Your task to perform on an android device: turn off data saver in the chrome app Image 0: 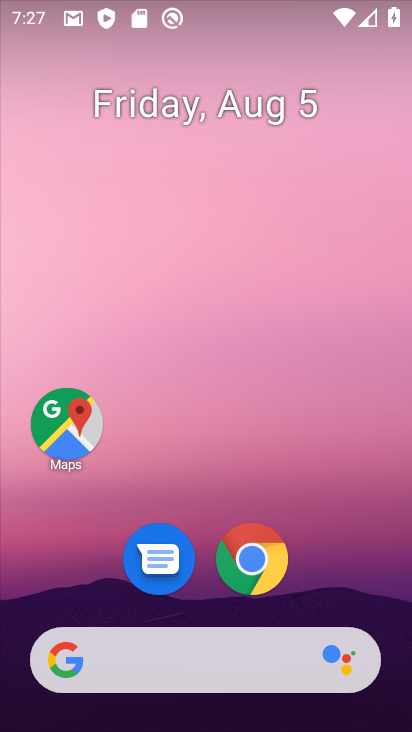
Step 0: drag from (186, 608) to (411, 460)
Your task to perform on an android device: turn off data saver in the chrome app Image 1: 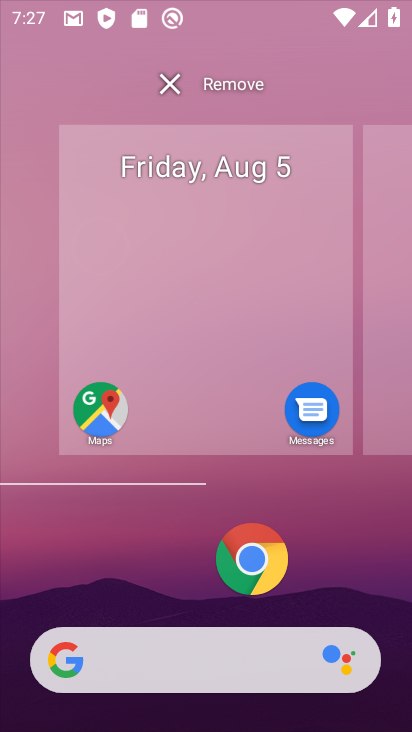
Step 1: click (321, 535)
Your task to perform on an android device: turn off data saver in the chrome app Image 2: 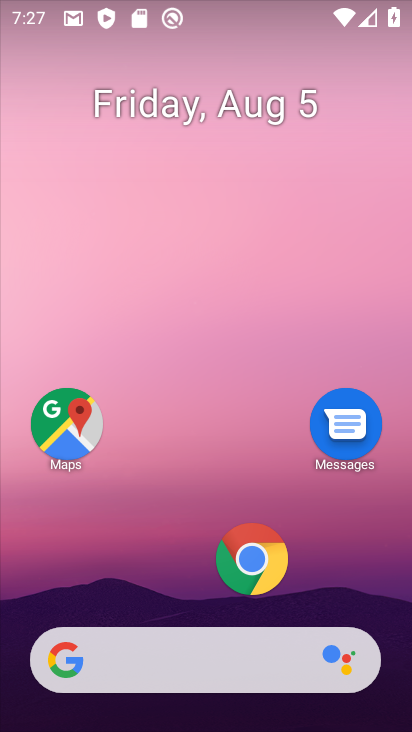
Step 2: drag from (171, 633) to (91, 150)
Your task to perform on an android device: turn off data saver in the chrome app Image 3: 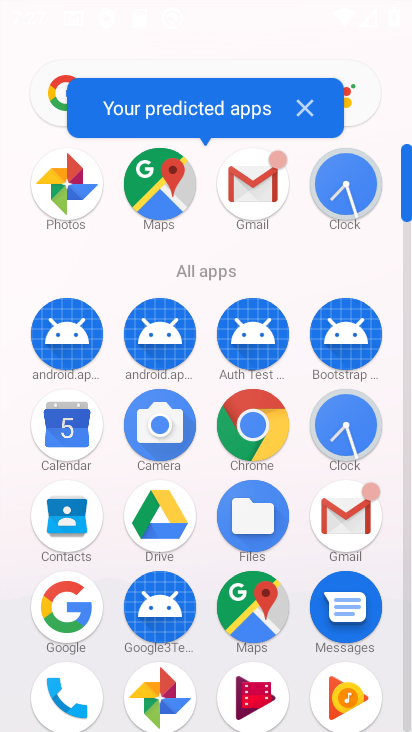
Step 3: click (270, 430)
Your task to perform on an android device: turn off data saver in the chrome app Image 4: 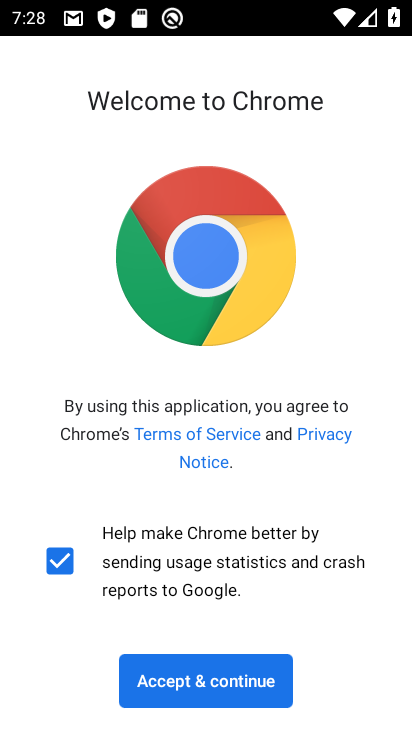
Step 4: click (269, 680)
Your task to perform on an android device: turn off data saver in the chrome app Image 5: 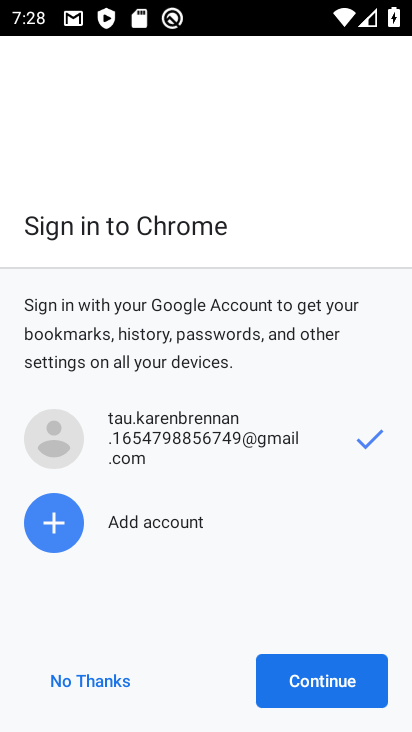
Step 5: click (317, 672)
Your task to perform on an android device: turn off data saver in the chrome app Image 6: 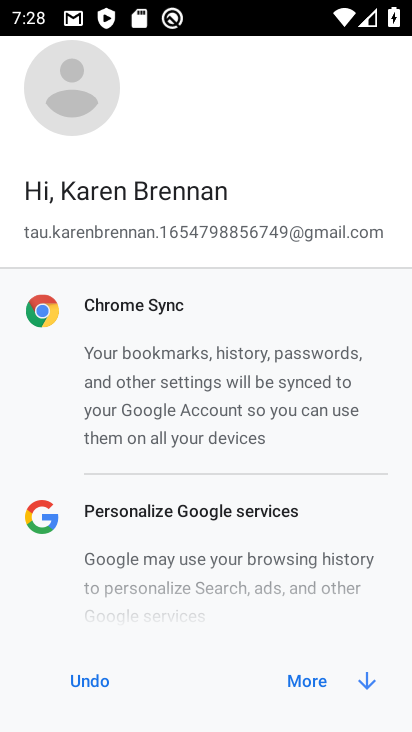
Step 6: click (344, 665)
Your task to perform on an android device: turn off data saver in the chrome app Image 7: 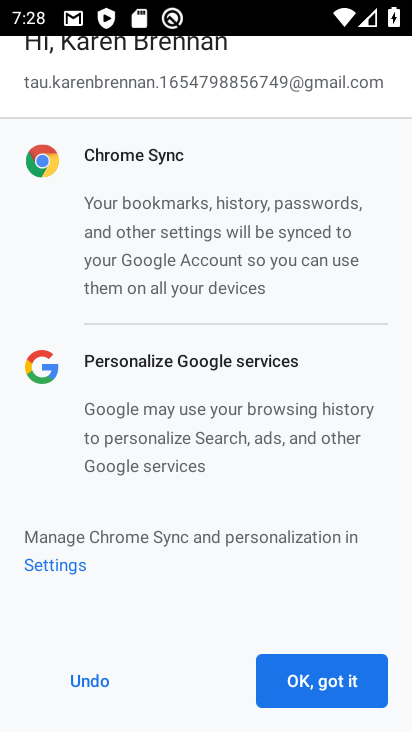
Step 7: click (312, 666)
Your task to perform on an android device: turn off data saver in the chrome app Image 8: 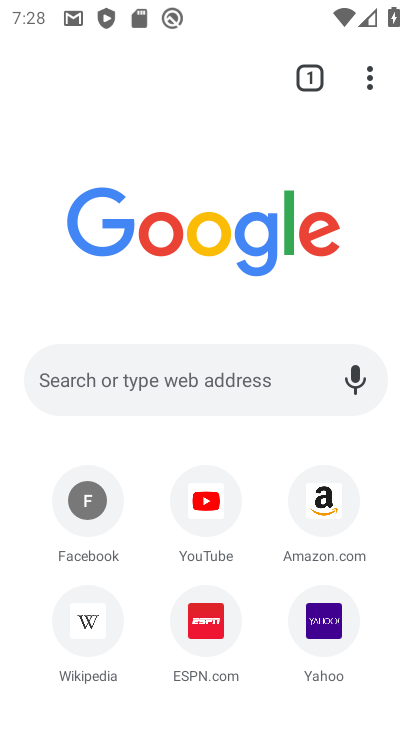
Step 8: click (361, 82)
Your task to perform on an android device: turn off data saver in the chrome app Image 9: 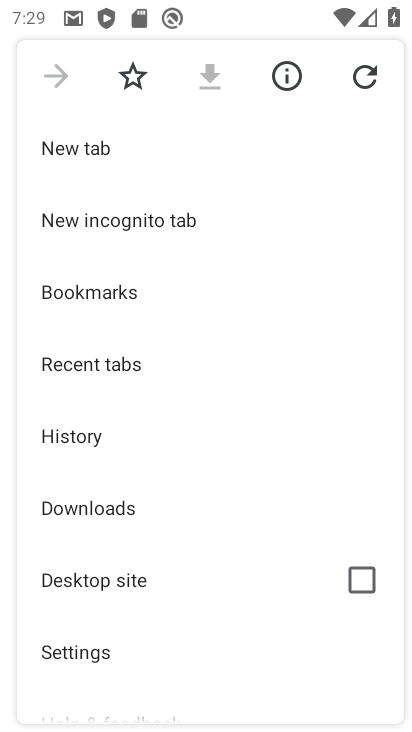
Step 9: drag from (57, 649) to (86, 197)
Your task to perform on an android device: turn off data saver in the chrome app Image 10: 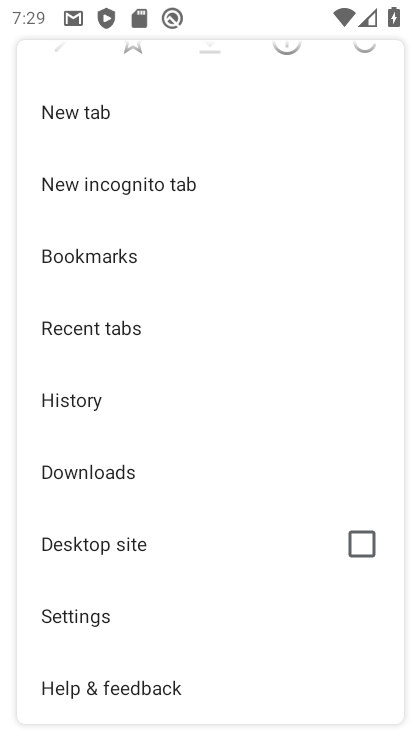
Step 10: click (99, 628)
Your task to perform on an android device: turn off data saver in the chrome app Image 11: 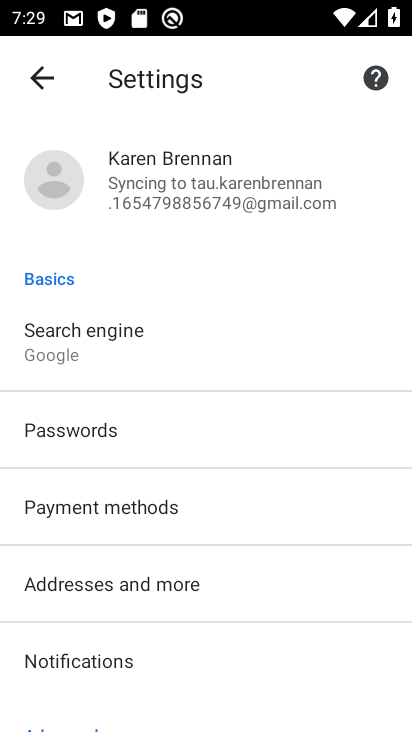
Step 11: drag from (47, 491) to (45, 127)
Your task to perform on an android device: turn off data saver in the chrome app Image 12: 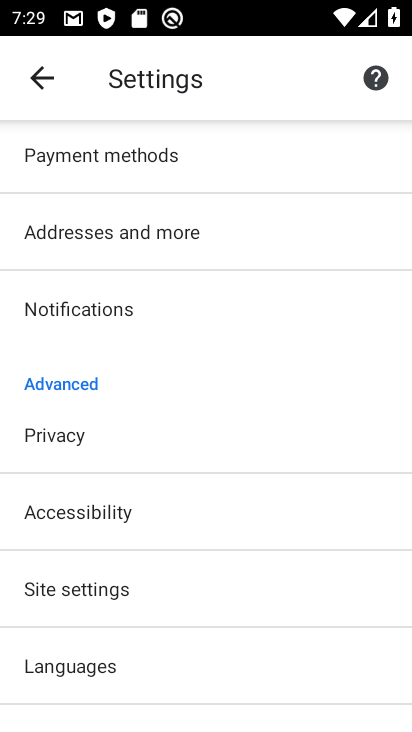
Step 12: drag from (121, 643) to (82, 266)
Your task to perform on an android device: turn off data saver in the chrome app Image 13: 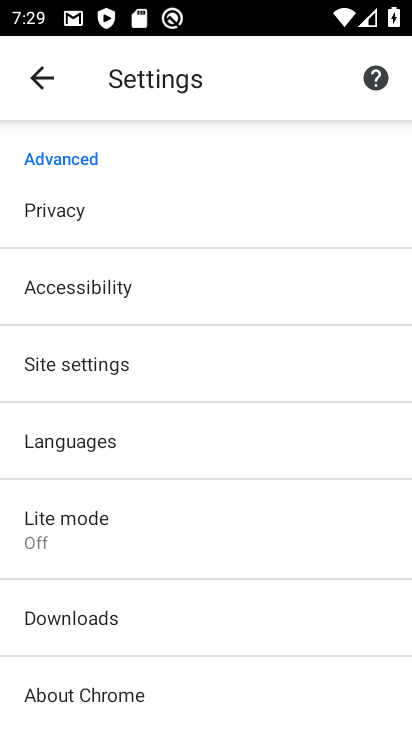
Step 13: click (68, 522)
Your task to perform on an android device: turn off data saver in the chrome app Image 14: 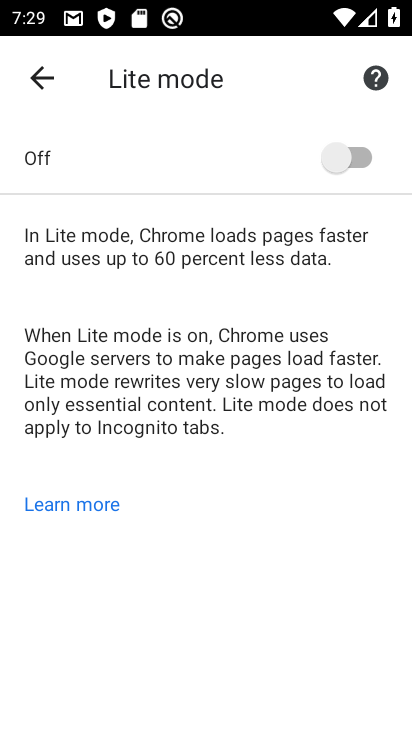
Step 14: task complete